Your task to perform on an android device: Open Chrome and go to settings Image 0: 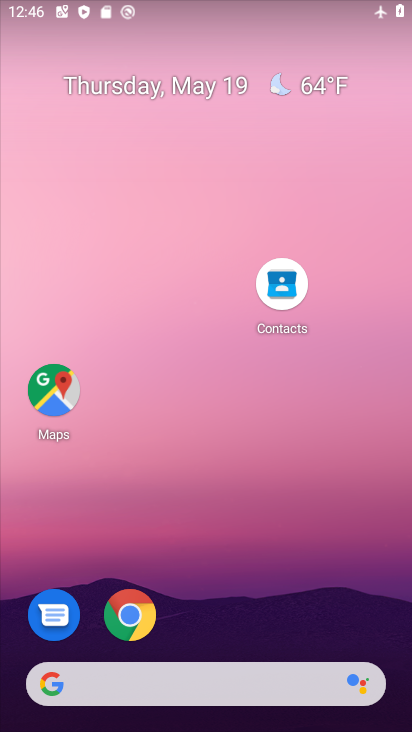
Step 0: drag from (278, 623) to (268, 294)
Your task to perform on an android device: Open Chrome and go to settings Image 1: 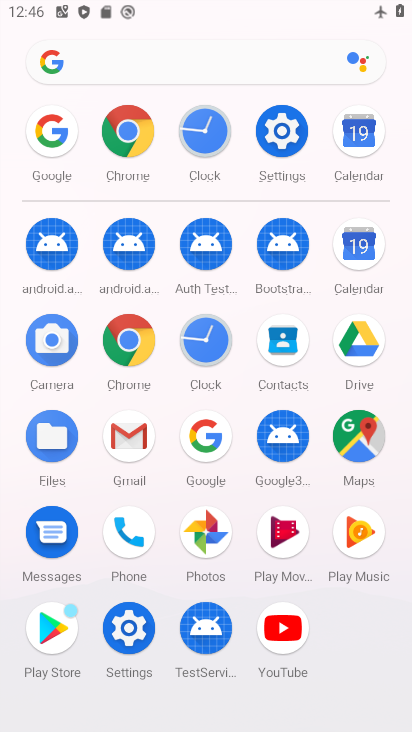
Step 1: click (127, 351)
Your task to perform on an android device: Open Chrome and go to settings Image 2: 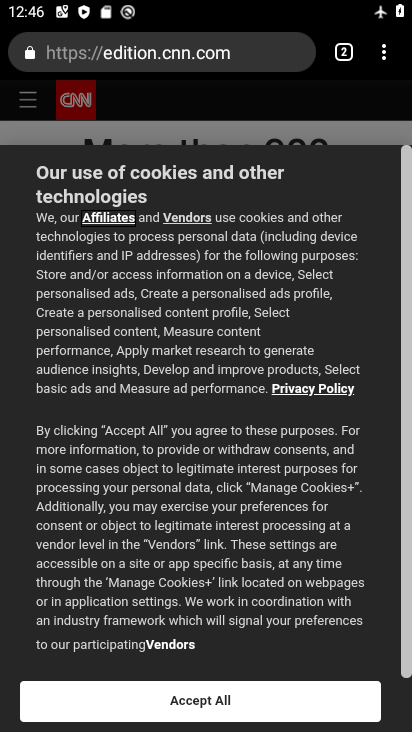
Step 2: click (387, 59)
Your task to perform on an android device: Open Chrome and go to settings Image 3: 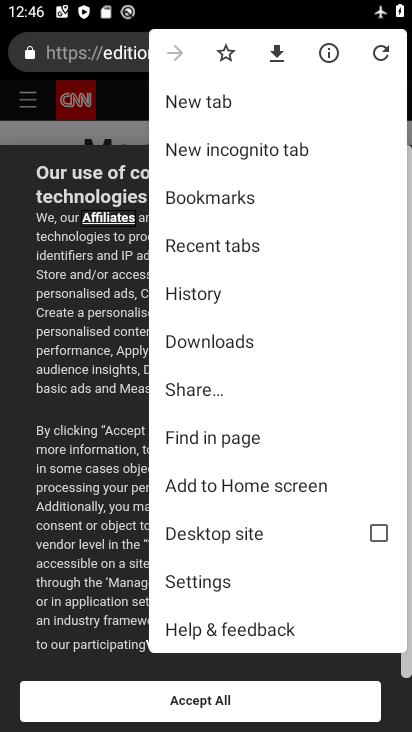
Step 3: click (222, 586)
Your task to perform on an android device: Open Chrome and go to settings Image 4: 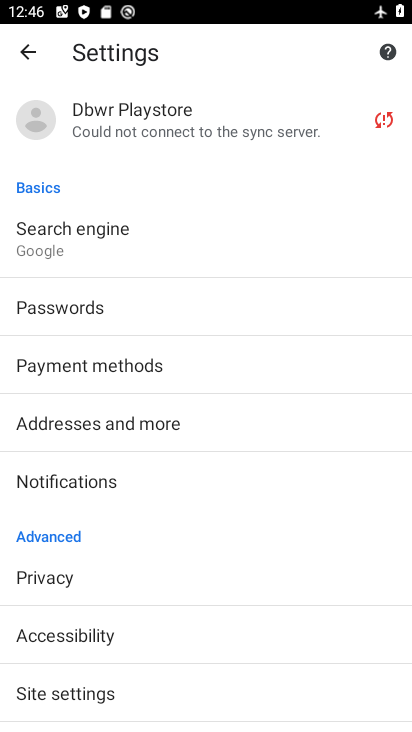
Step 4: task complete